Your task to perform on an android device: Open Google Chrome and open the bookmarks view Image 0: 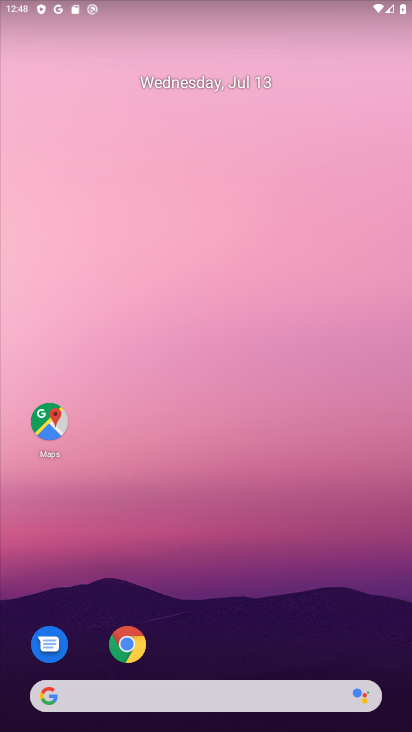
Step 0: drag from (295, 624) to (270, 200)
Your task to perform on an android device: Open Google Chrome and open the bookmarks view Image 1: 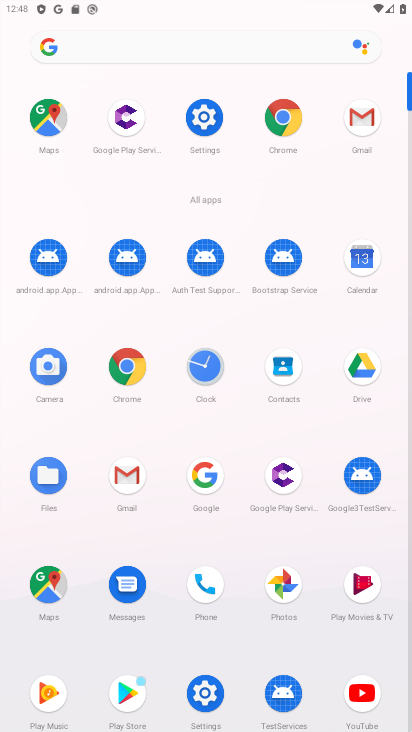
Step 1: click (288, 117)
Your task to perform on an android device: Open Google Chrome and open the bookmarks view Image 2: 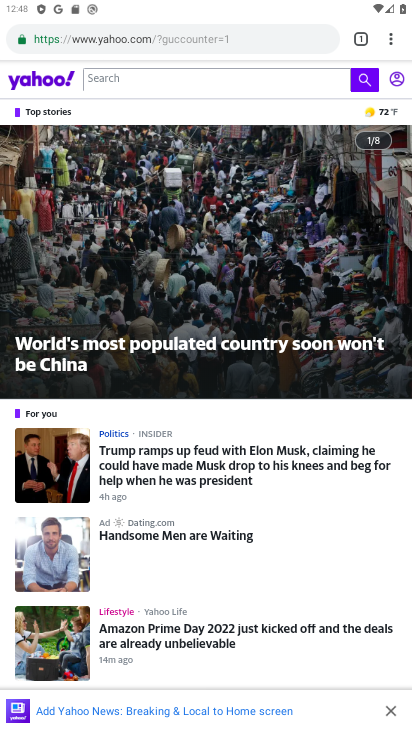
Step 2: click (392, 30)
Your task to perform on an android device: Open Google Chrome and open the bookmarks view Image 3: 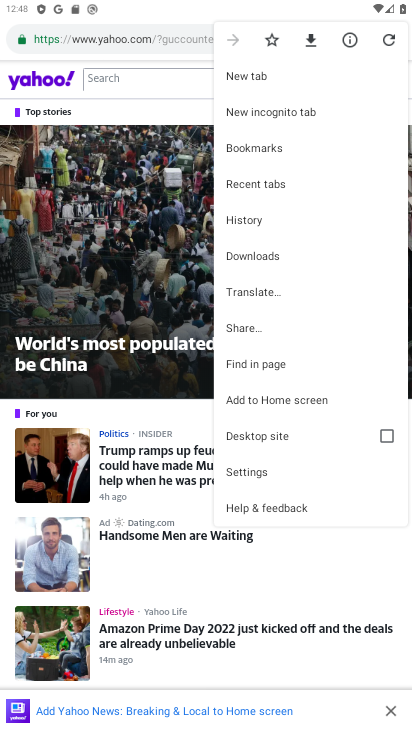
Step 3: click (265, 153)
Your task to perform on an android device: Open Google Chrome and open the bookmarks view Image 4: 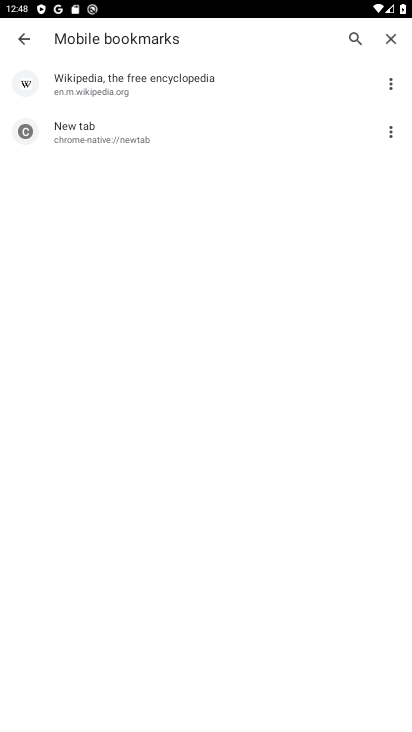
Step 4: task complete